Your task to perform on an android device: Open calendar and show me the fourth week of next month Image 0: 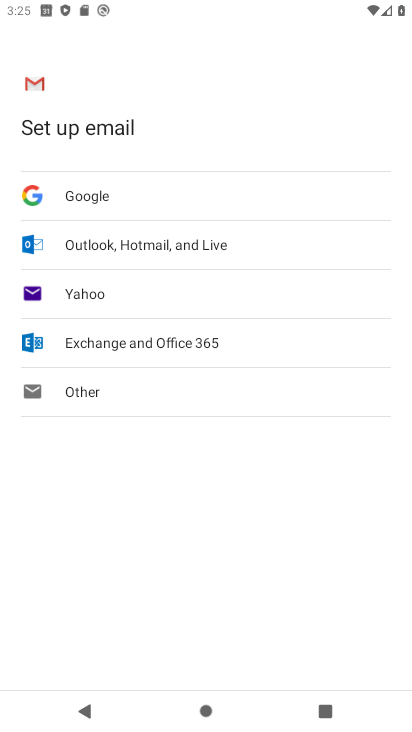
Step 0: press home button
Your task to perform on an android device: Open calendar and show me the fourth week of next month Image 1: 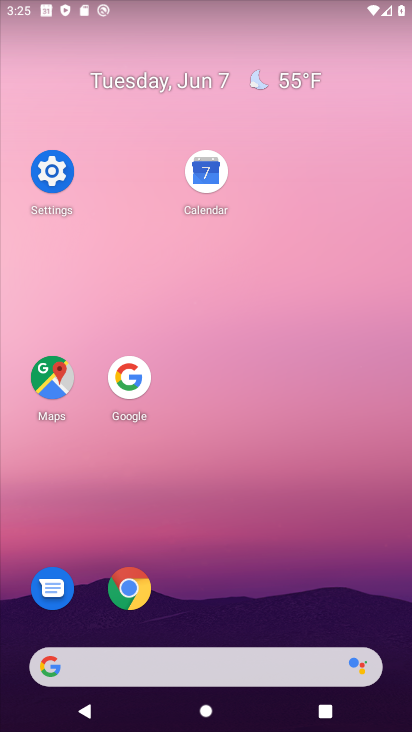
Step 1: click (216, 165)
Your task to perform on an android device: Open calendar and show me the fourth week of next month Image 2: 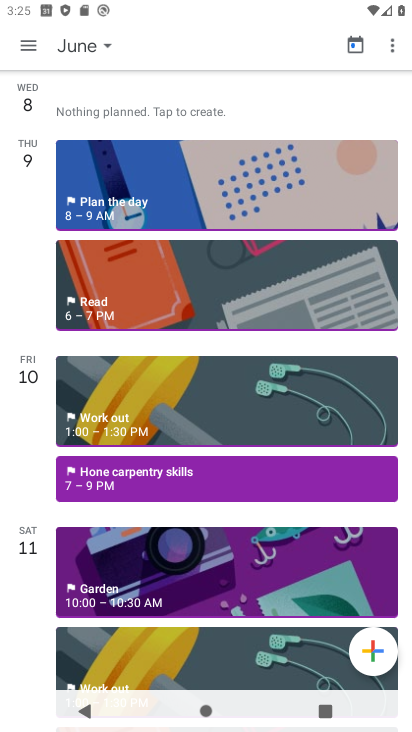
Step 2: click (91, 52)
Your task to perform on an android device: Open calendar and show me the fourth week of next month Image 3: 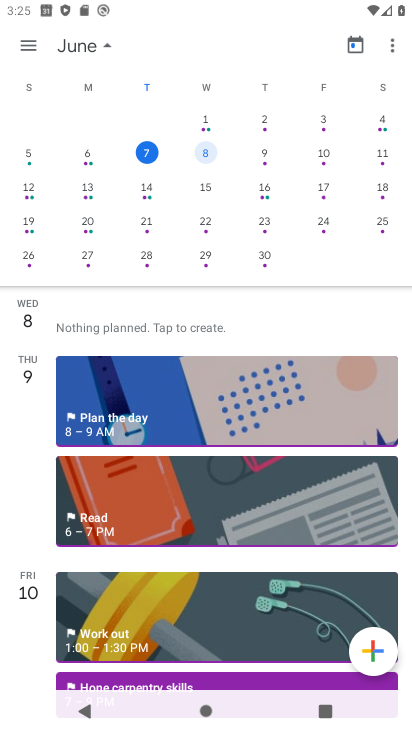
Step 3: drag from (404, 209) to (1, 89)
Your task to perform on an android device: Open calendar and show me the fourth week of next month Image 4: 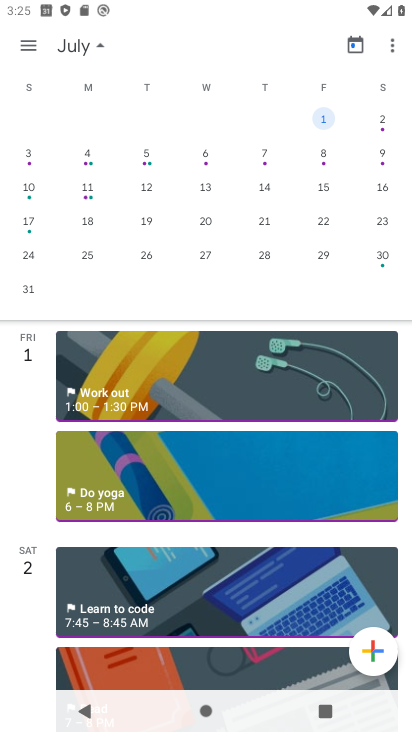
Step 4: click (30, 52)
Your task to perform on an android device: Open calendar and show me the fourth week of next month Image 5: 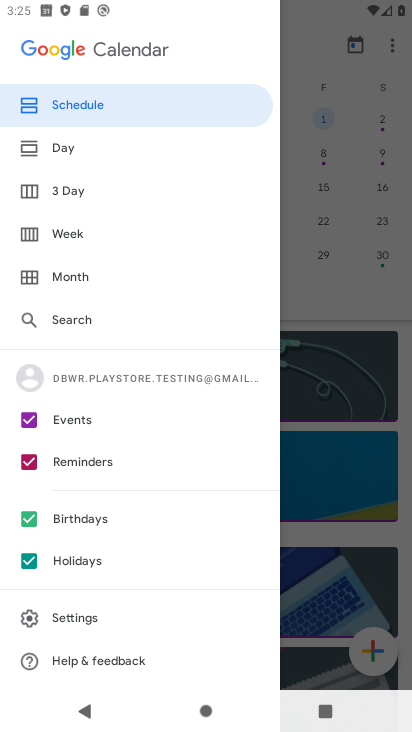
Step 5: click (104, 232)
Your task to perform on an android device: Open calendar and show me the fourth week of next month Image 6: 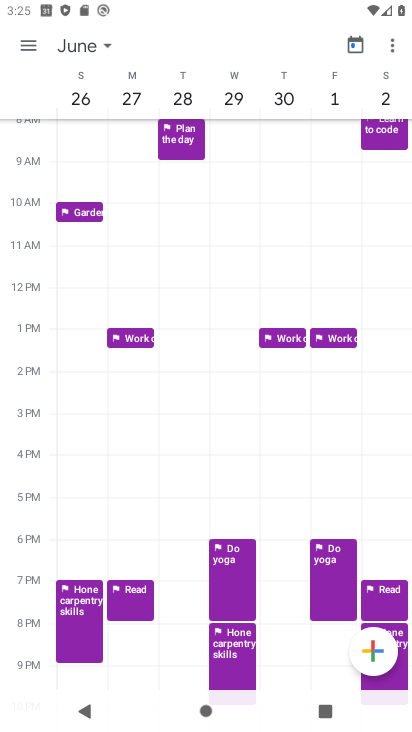
Step 6: task complete